Your task to perform on an android device: Empty the shopping cart on amazon.com. Add apple airpods pro to the cart on amazon.com, then select checkout. Image 0: 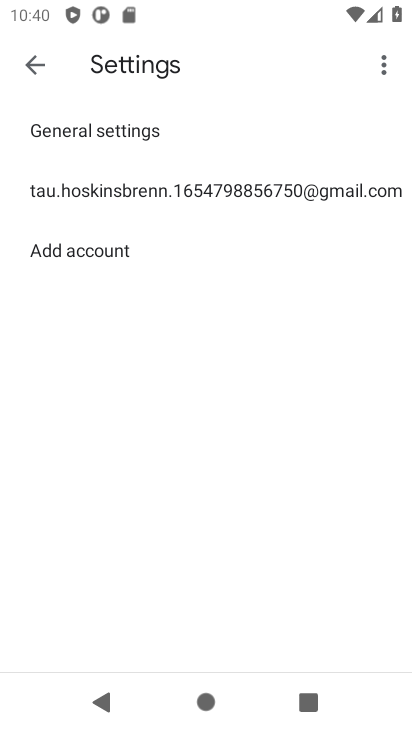
Step 0: press home button
Your task to perform on an android device: Empty the shopping cart on amazon.com. Add apple airpods pro to the cart on amazon.com, then select checkout. Image 1: 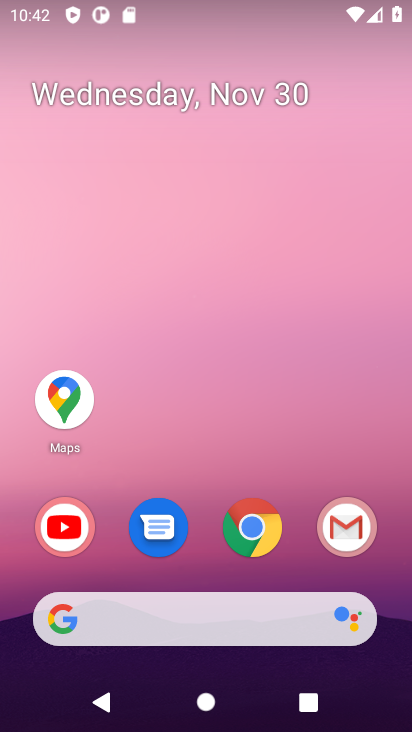
Step 1: click (255, 535)
Your task to perform on an android device: Empty the shopping cart on amazon.com. Add apple airpods pro to the cart on amazon.com, then select checkout. Image 2: 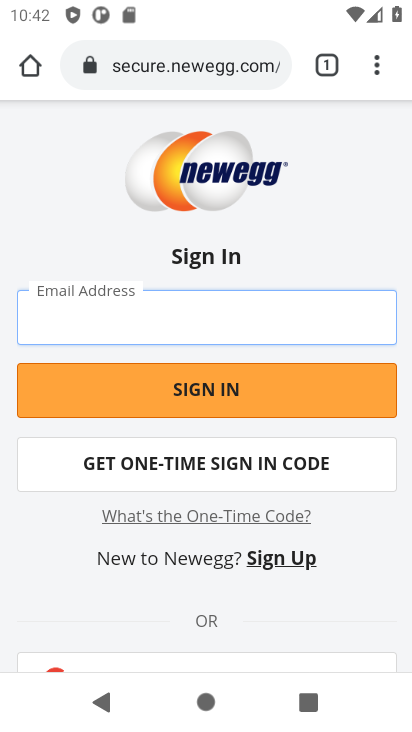
Step 2: click (180, 70)
Your task to perform on an android device: Empty the shopping cart on amazon.com. Add apple airpods pro to the cart on amazon.com, then select checkout. Image 3: 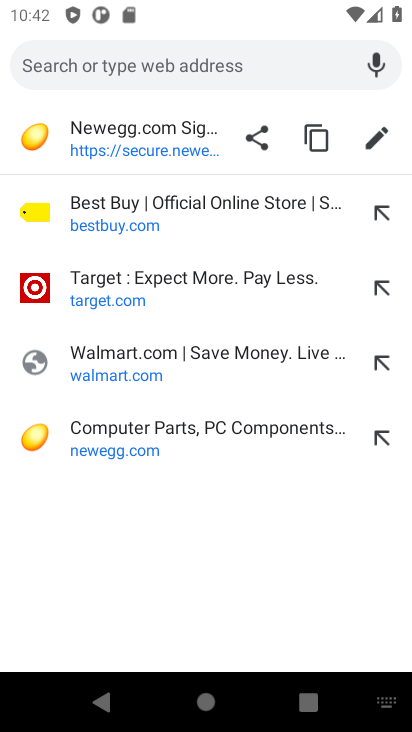
Step 3: type "amazon.com"
Your task to perform on an android device: Empty the shopping cart on amazon.com. Add apple airpods pro to the cart on amazon.com, then select checkout. Image 4: 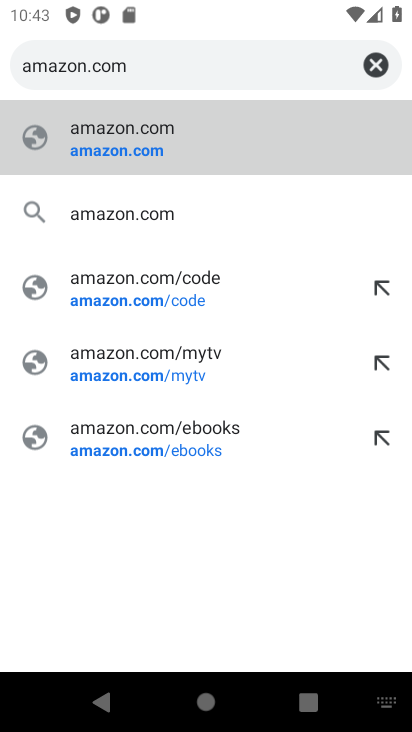
Step 4: click (124, 144)
Your task to perform on an android device: Empty the shopping cart on amazon.com. Add apple airpods pro to the cart on amazon.com, then select checkout. Image 5: 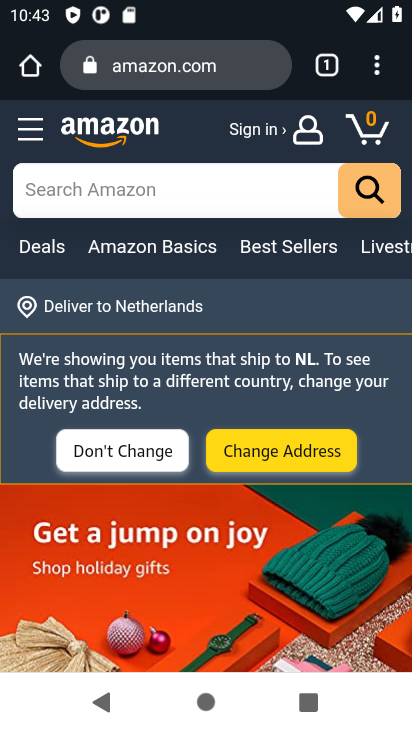
Step 5: click (369, 123)
Your task to perform on an android device: Empty the shopping cart on amazon.com. Add apple airpods pro to the cart on amazon.com, then select checkout. Image 6: 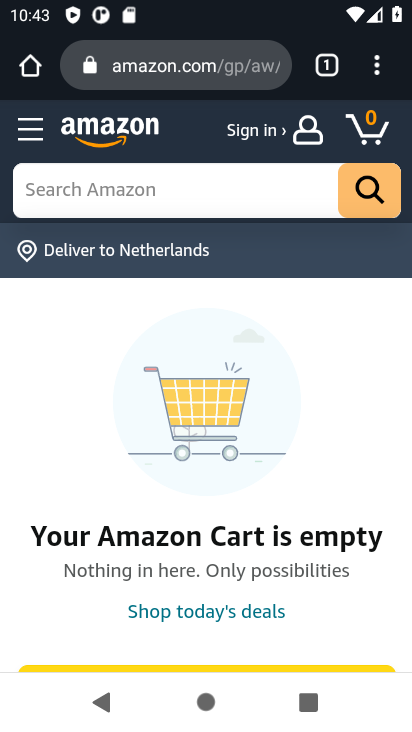
Step 6: click (123, 186)
Your task to perform on an android device: Empty the shopping cart on amazon.com. Add apple airpods pro to the cart on amazon.com, then select checkout. Image 7: 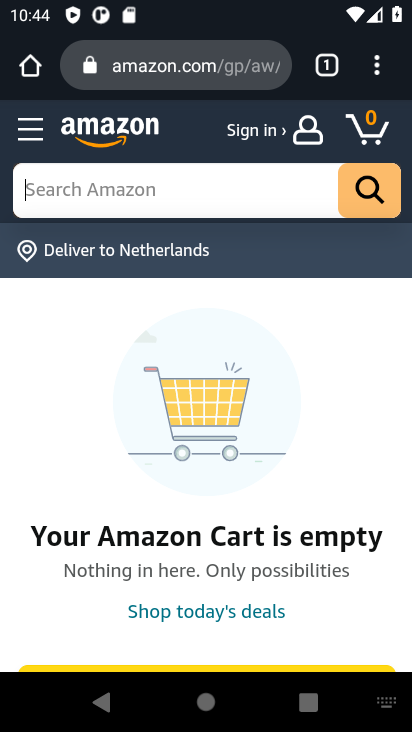
Step 7: type "apple airpods pro"
Your task to perform on an android device: Empty the shopping cart on amazon.com. Add apple airpods pro to the cart on amazon.com, then select checkout. Image 8: 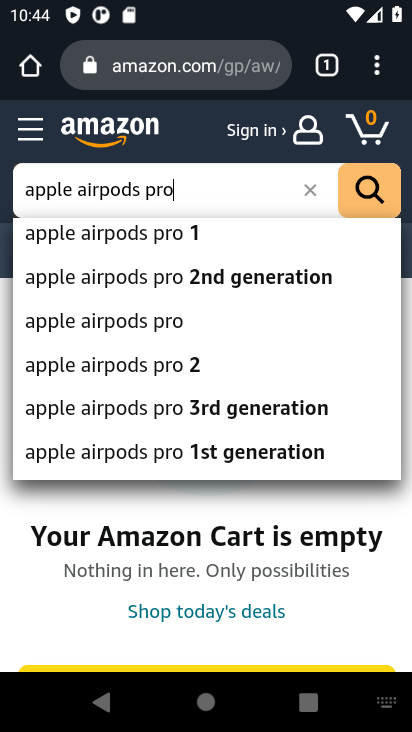
Step 8: click (95, 324)
Your task to perform on an android device: Empty the shopping cart on amazon.com. Add apple airpods pro to the cart on amazon.com, then select checkout. Image 9: 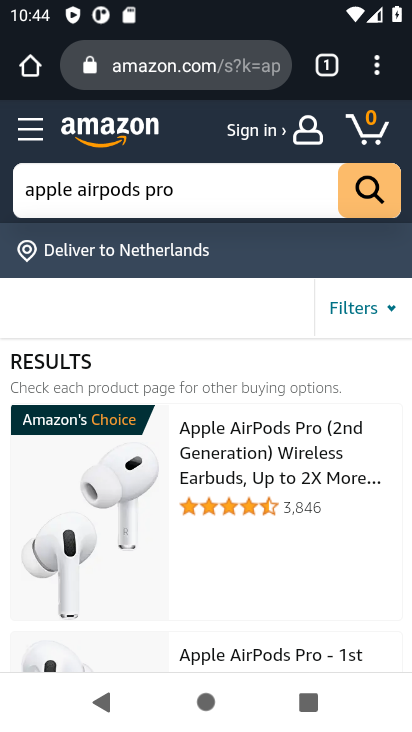
Step 9: drag from (233, 566) to (243, 399)
Your task to perform on an android device: Empty the shopping cart on amazon.com. Add apple airpods pro to the cart on amazon.com, then select checkout. Image 10: 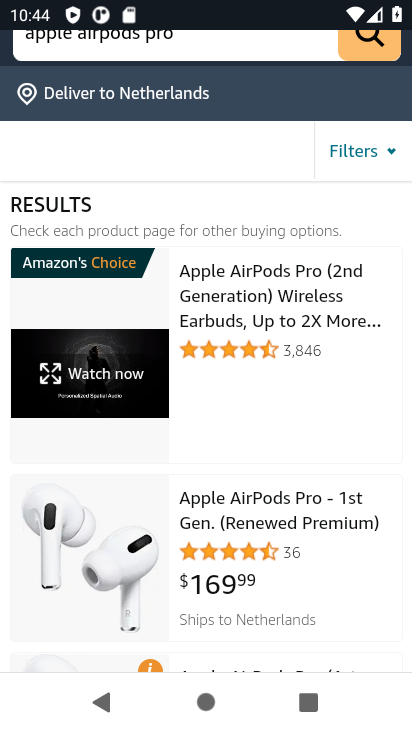
Step 10: drag from (212, 520) to (204, 345)
Your task to perform on an android device: Empty the shopping cart on amazon.com. Add apple airpods pro to the cart on amazon.com, then select checkout. Image 11: 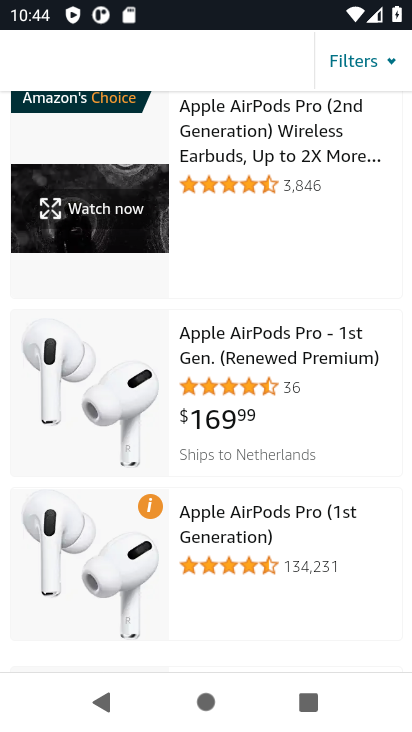
Step 11: click (228, 352)
Your task to perform on an android device: Empty the shopping cart on amazon.com. Add apple airpods pro to the cart on amazon.com, then select checkout. Image 12: 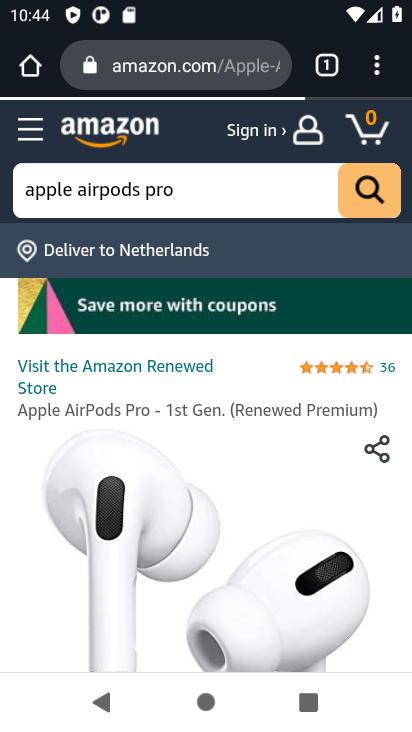
Step 12: drag from (140, 514) to (148, 305)
Your task to perform on an android device: Empty the shopping cart on amazon.com. Add apple airpods pro to the cart on amazon.com, then select checkout. Image 13: 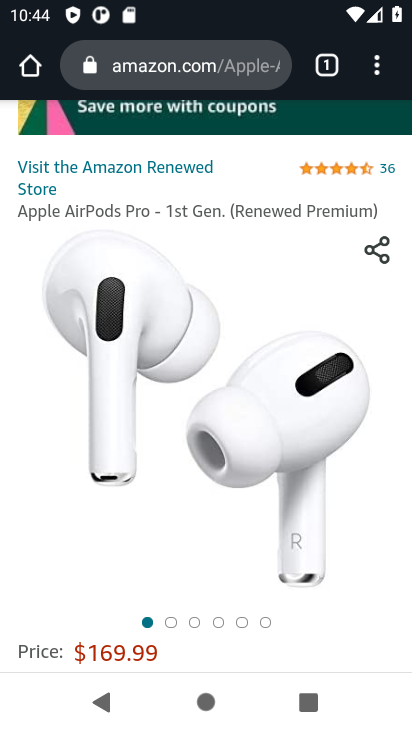
Step 13: drag from (151, 544) to (155, 271)
Your task to perform on an android device: Empty the shopping cart on amazon.com. Add apple airpods pro to the cart on amazon.com, then select checkout. Image 14: 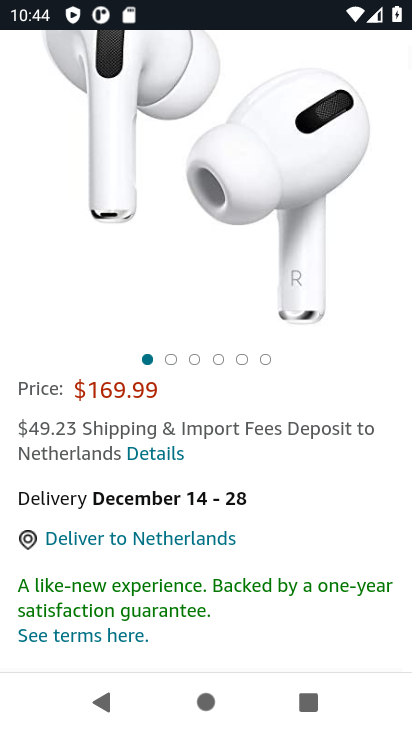
Step 14: drag from (193, 537) to (161, 242)
Your task to perform on an android device: Empty the shopping cart on amazon.com. Add apple airpods pro to the cart on amazon.com, then select checkout. Image 15: 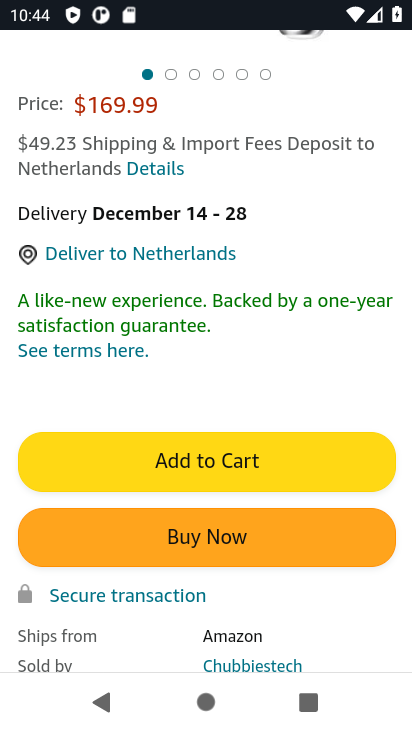
Step 15: click (174, 458)
Your task to perform on an android device: Empty the shopping cart on amazon.com. Add apple airpods pro to the cart on amazon.com, then select checkout. Image 16: 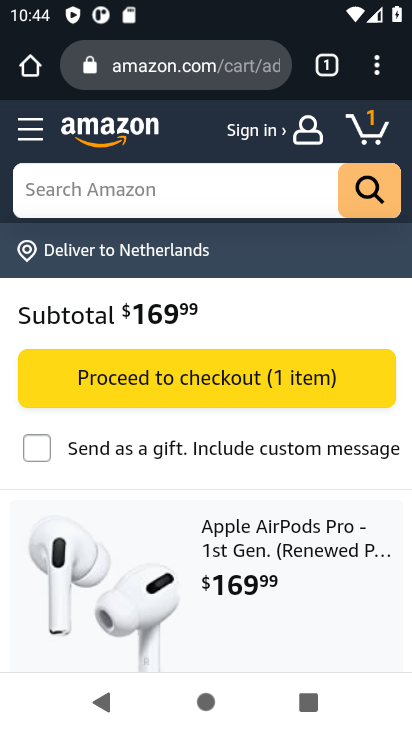
Step 16: click (178, 382)
Your task to perform on an android device: Empty the shopping cart on amazon.com. Add apple airpods pro to the cart on amazon.com, then select checkout. Image 17: 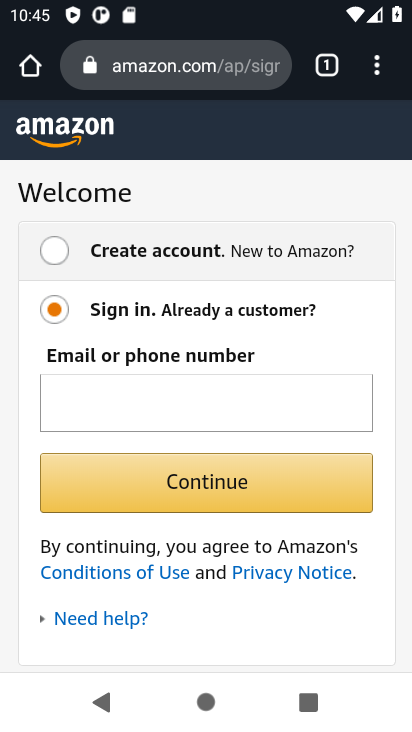
Step 17: task complete